Your task to perform on an android device: When is my next appointment? Image 0: 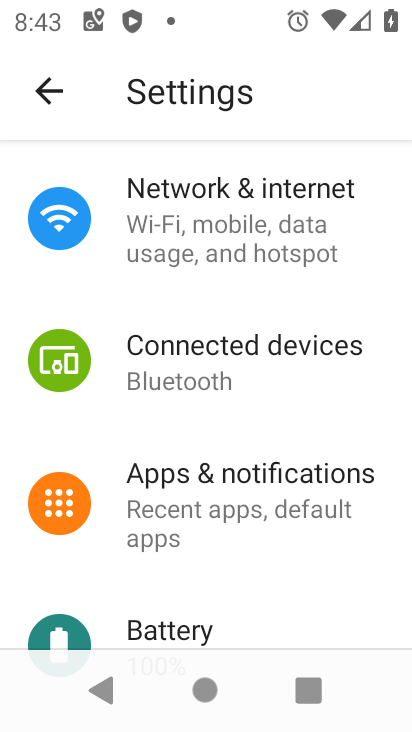
Step 0: press home button
Your task to perform on an android device: When is my next appointment? Image 1: 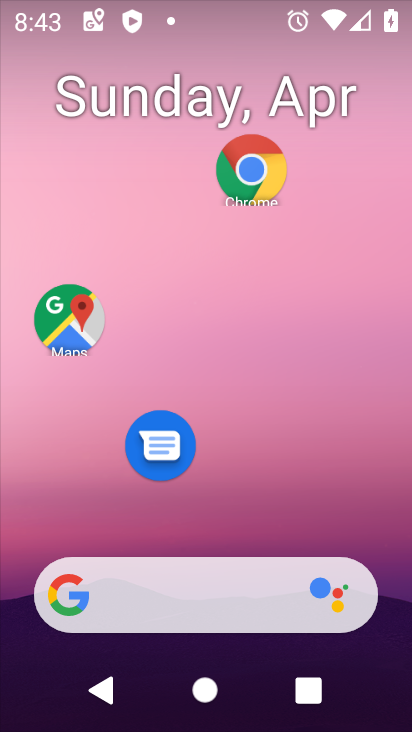
Step 1: drag from (259, 501) to (230, 3)
Your task to perform on an android device: When is my next appointment? Image 2: 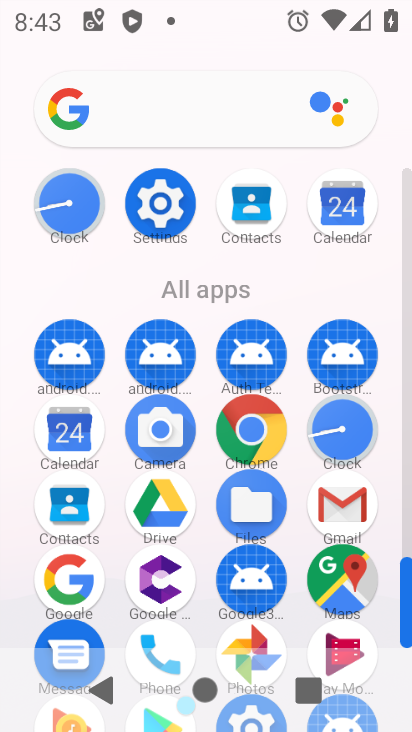
Step 2: click (67, 436)
Your task to perform on an android device: When is my next appointment? Image 3: 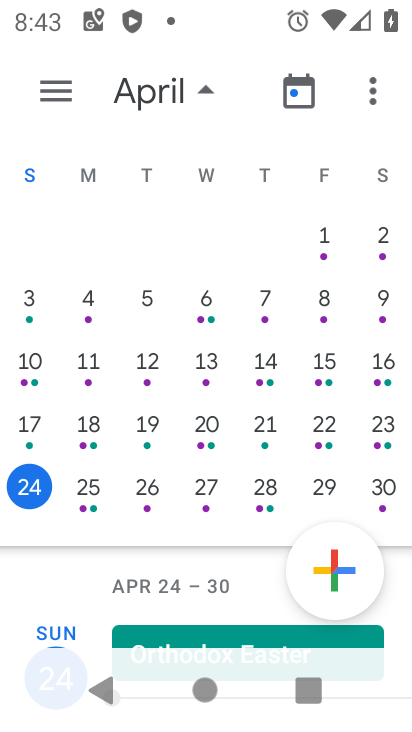
Step 3: click (265, 488)
Your task to perform on an android device: When is my next appointment? Image 4: 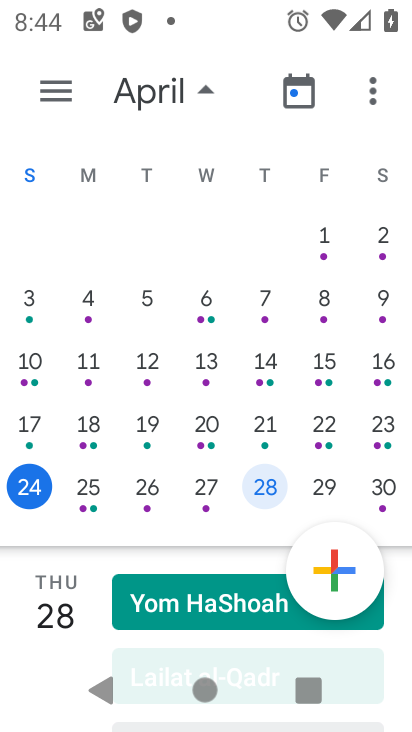
Step 4: task complete